Your task to perform on an android device: turn smart compose on in the gmail app Image 0: 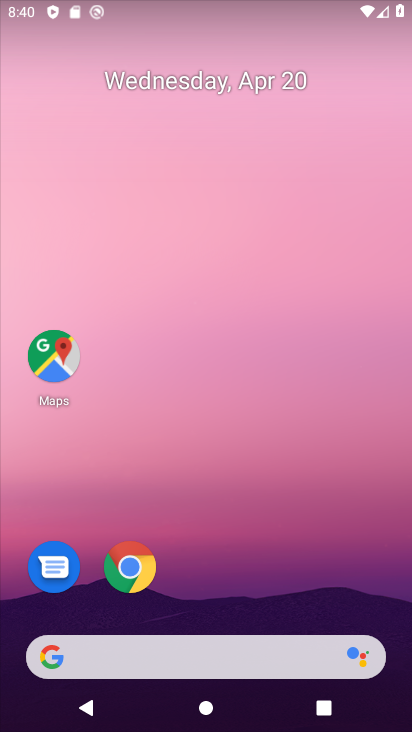
Step 0: drag from (204, 625) to (289, 89)
Your task to perform on an android device: turn smart compose on in the gmail app Image 1: 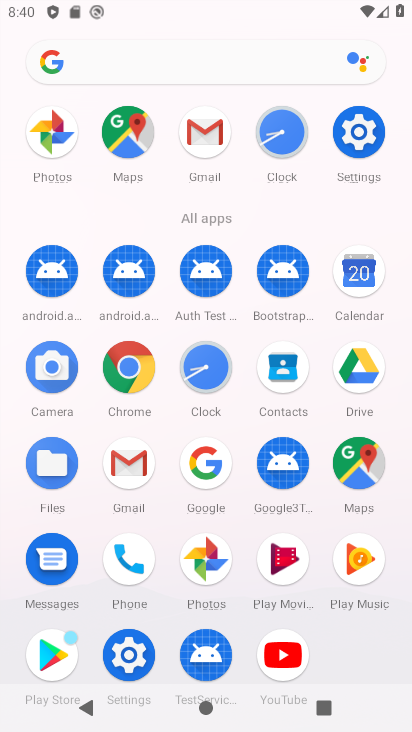
Step 1: click (128, 478)
Your task to perform on an android device: turn smart compose on in the gmail app Image 2: 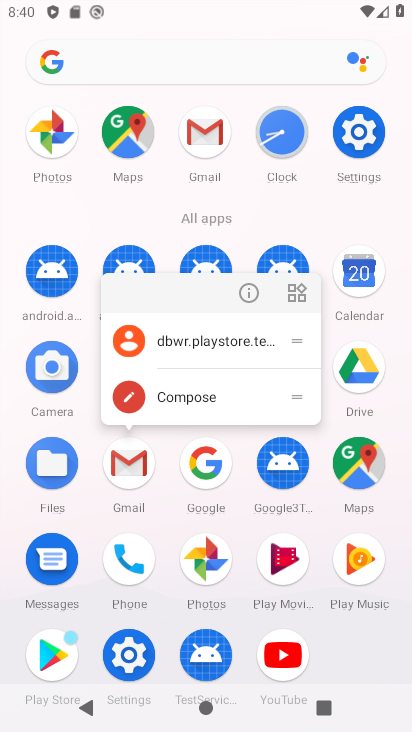
Step 2: click (136, 472)
Your task to perform on an android device: turn smart compose on in the gmail app Image 3: 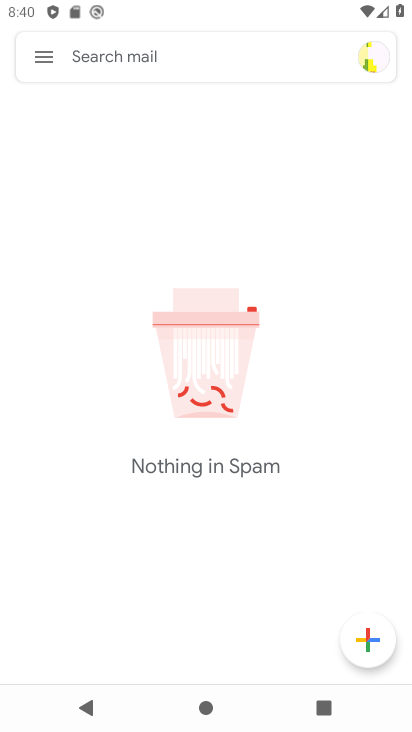
Step 3: click (51, 56)
Your task to perform on an android device: turn smart compose on in the gmail app Image 4: 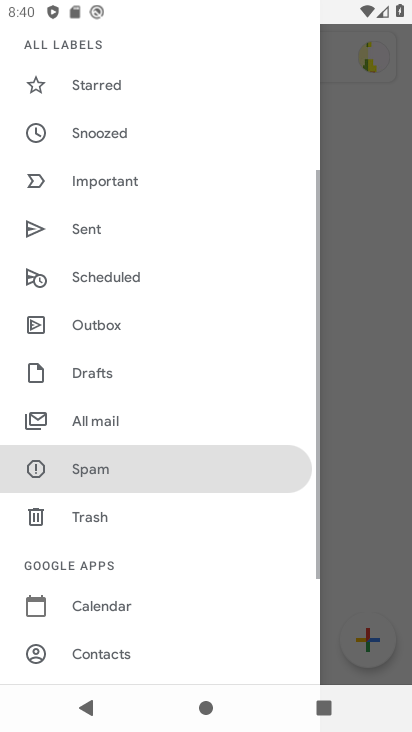
Step 4: drag from (147, 589) to (230, 241)
Your task to perform on an android device: turn smart compose on in the gmail app Image 5: 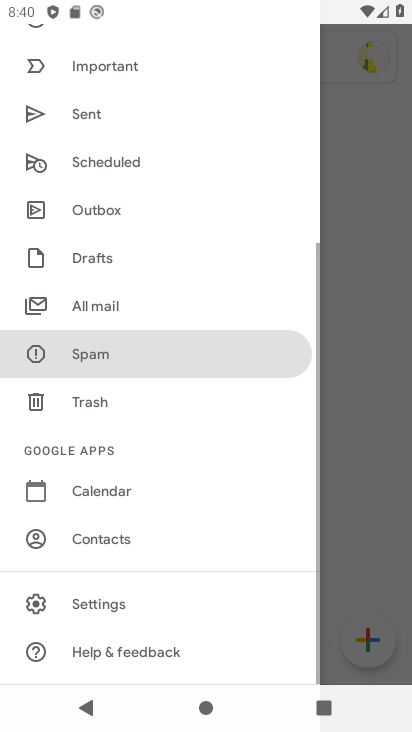
Step 5: click (127, 600)
Your task to perform on an android device: turn smart compose on in the gmail app Image 6: 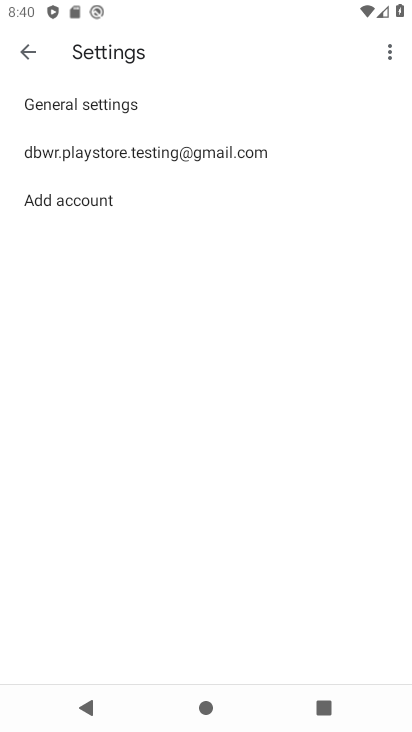
Step 6: click (234, 156)
Your task to perform on an android device: turn smart compose on in the gmail app Image 7: 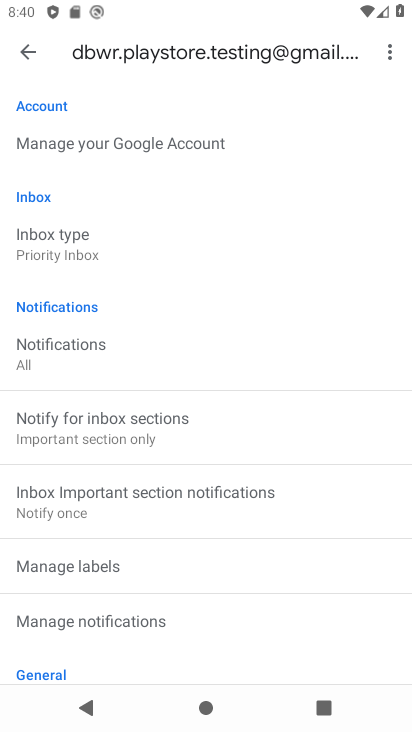
Step 7: task complete